Your task to perform on an android device: toggle location history Image 0: 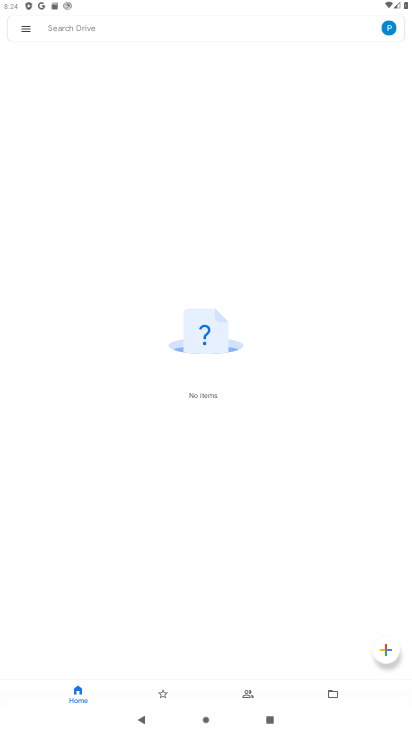
Step 0: press home button
Your task to perform on an android device: toggle location history Image 1: 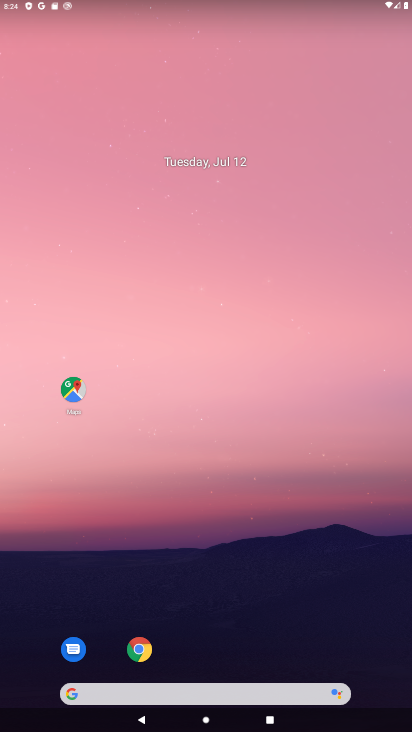
Step 1: drag from (268, 624) to (249, 46)
Your task to perform on an android device: toggle location history Image 2: 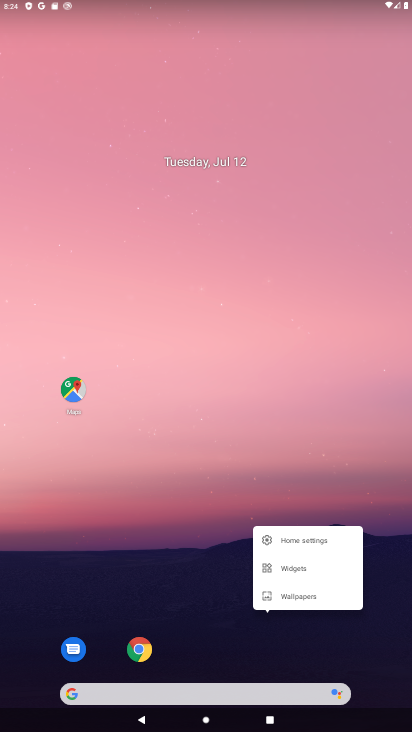
Step 2: click (205, 466)
Your task to perform on an android device: toggle location history Image 3: 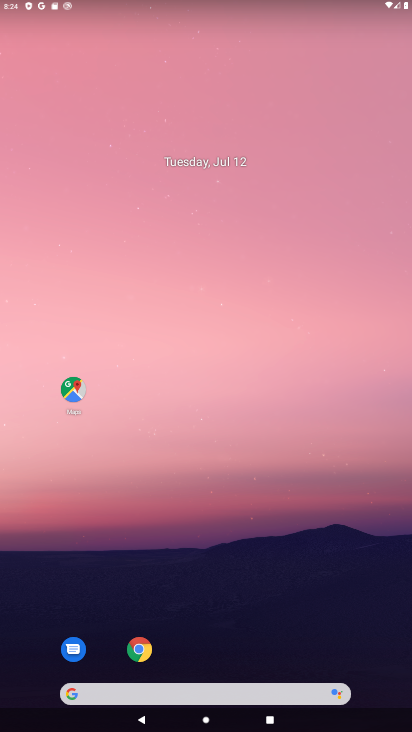
Step 3: click (230, 651)
Your task to perform on an android device: toggle location history Image 4: 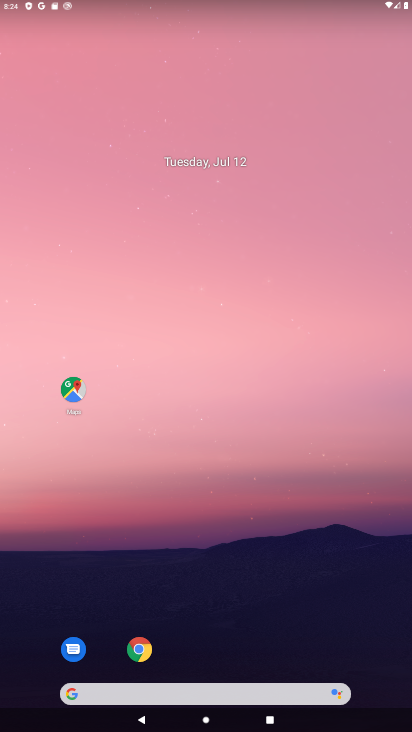
Step 4: drag from (230, 651) to (267, 45)
Your task to perform on an android device: toggle location history Image 5: 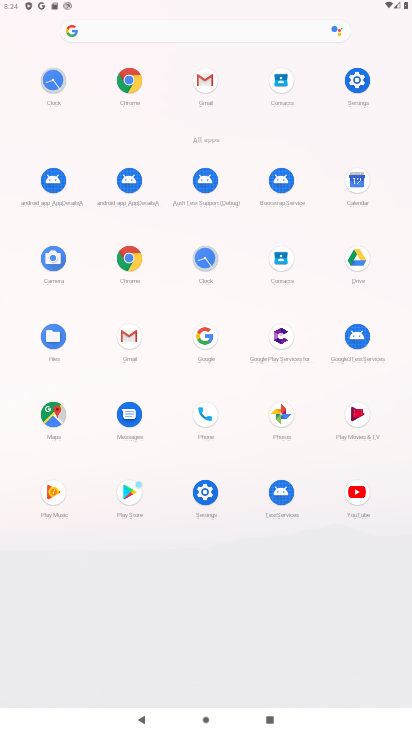
Step 5: click (348, 87)
Your task to perform on an android device: toggle location history Image 6: 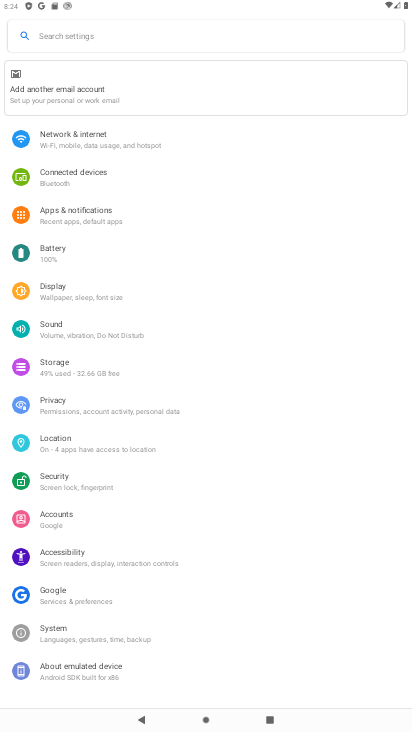
Step 6: click (70, 435)
Your task to perform on an android device: toggle location history Image 7: 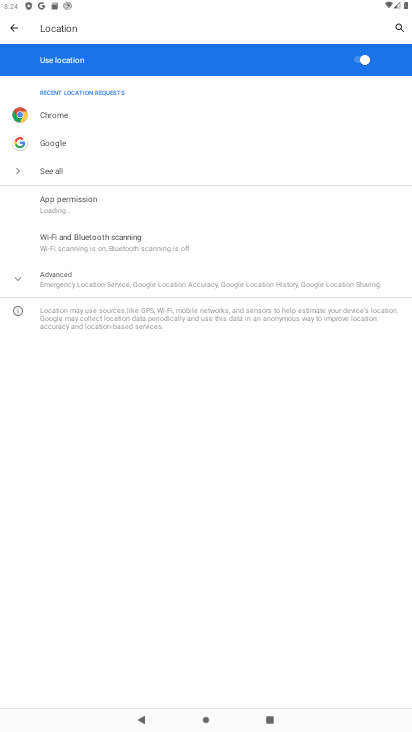
Step 7: click (103, 278)
Your task to perform on an android device: toggle location history Image 8: 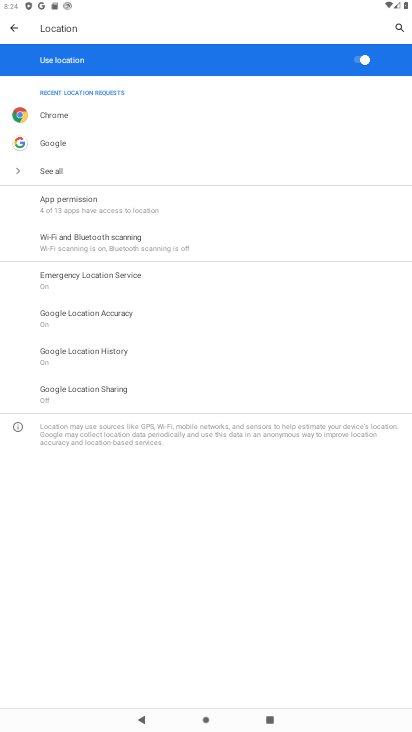
Step 8: click (109, 352)
Your task to perform on an android device: toggle location history Image 9: 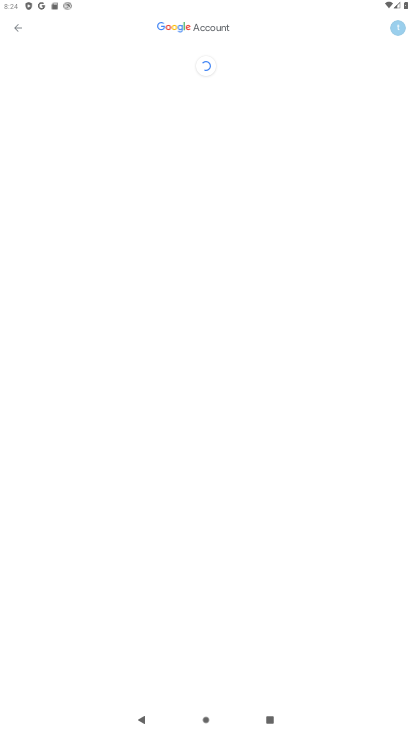
Step 9: task complete